Your task to perform on an android device: add a contact in the contacts app Image 0: 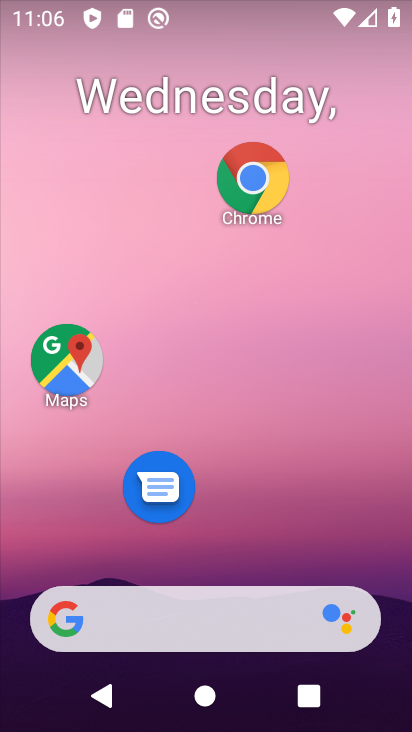
Step 0: drag from (287, 531) to (341, 72)
Your task to perform on an android device: add a contact in the contacts app Image 1: 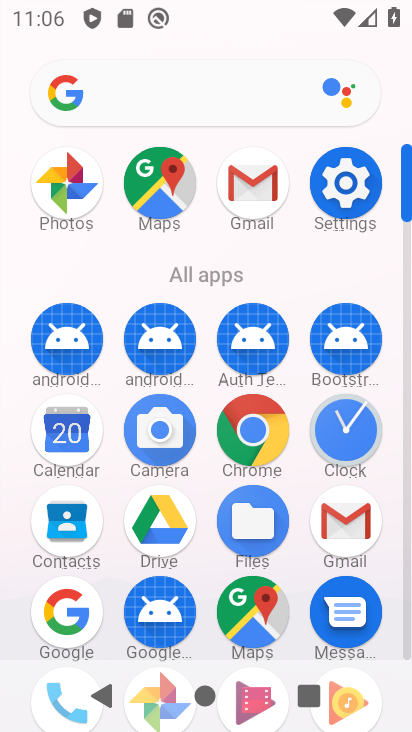
Step 1: click (72, 527)
Your task to perform on an android device: add a contact in the contacts app Image 2: 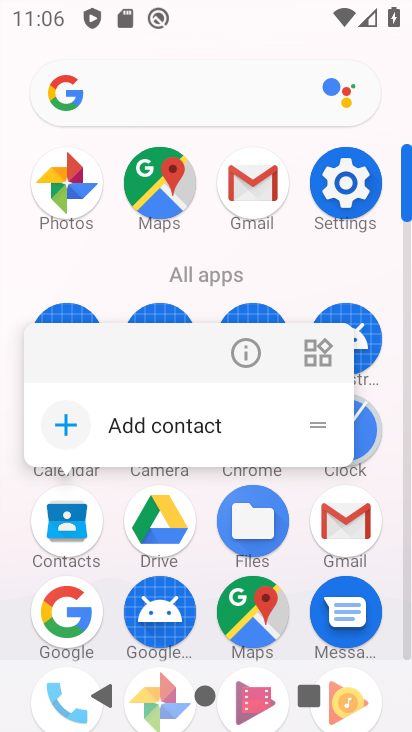
Step 2: click (72, 425)
Your task to perform on an android device: add a contact in the contacts app Image 3: 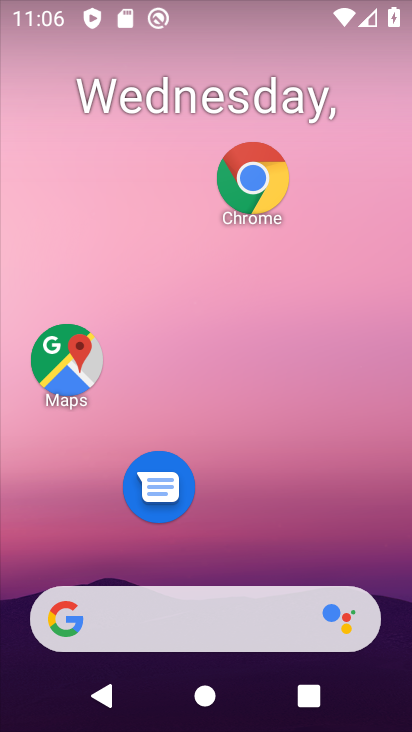
Step 3: drag from (258, 413) to (303, 42)
Your task to perform on an android device: add a contact in the contacts app Image 4: 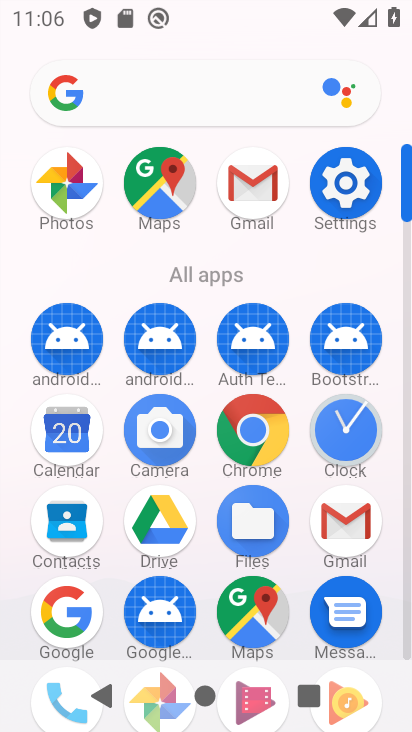
Step 4: click (80, 525)
Your task to perform on an android device: add a contact in the contacts app Image 5: 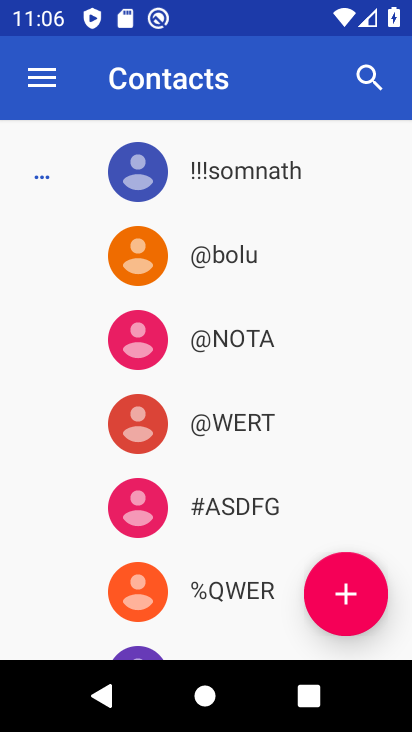
Step 5: click (340, 598)
Your task to perform on an android device: add a contact in the contacts app Image 6: 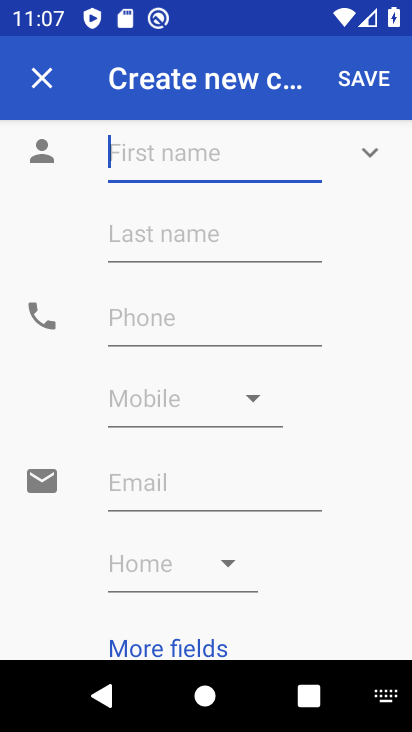
Step 6: type "ytrrtyjhgf"
Your task to perform on an android device: add a contact in the contacts app Image 7: 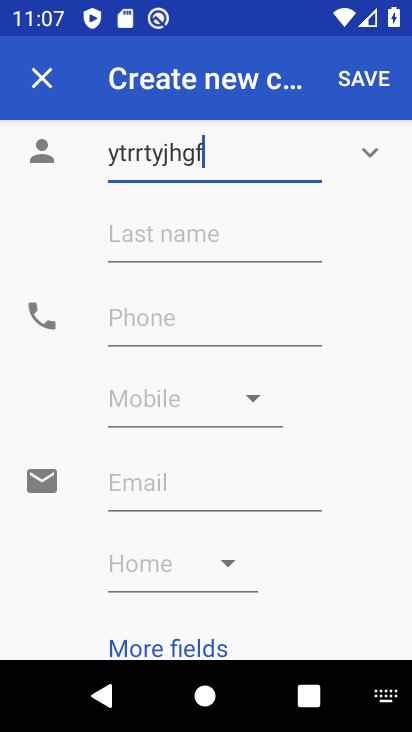
Step 7: click (191, 327)
Your task to perform on an android device: add a contact in the contacts app Image 8: 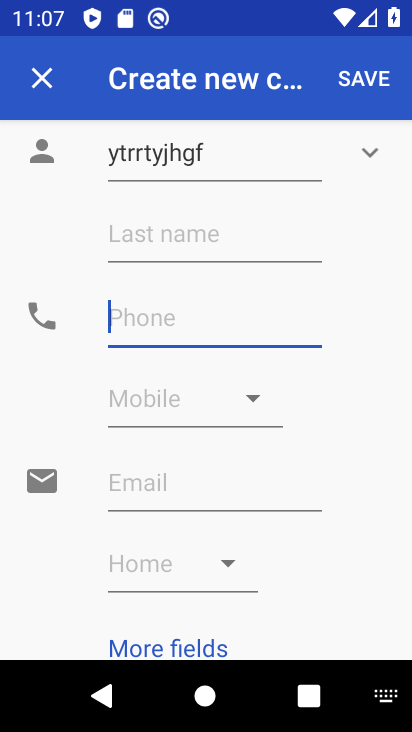
Step 8: type "234598765432"
Your task to perform on an android device: add a contact in the contacts app Image 9: 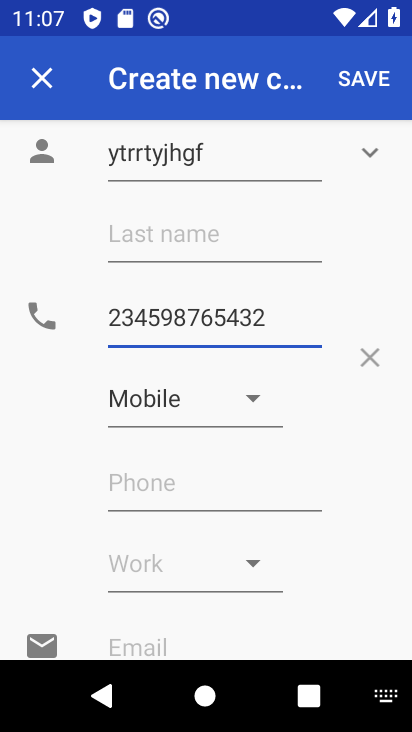
Step 9: click (367, 72)
Your task to perform on an android device: add a contact in the contacts app Image 10: 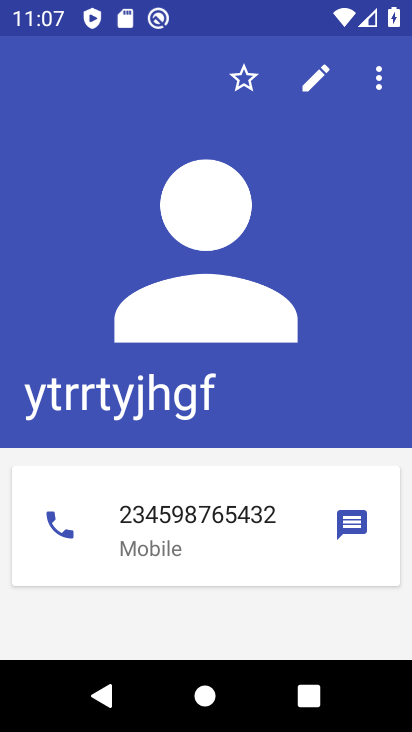
Step 10: task complete